Your task to perform on an android device: Open settings Image 0: 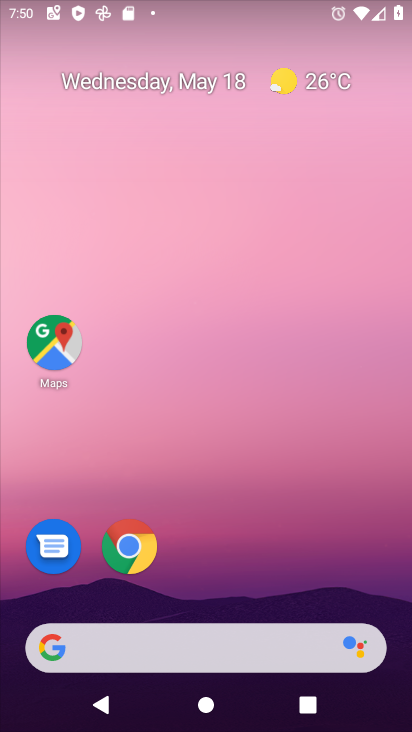
Step 0: drag from (349, 590) to (274, 82)
Your task to perform on an android device: Open settings Image 1: 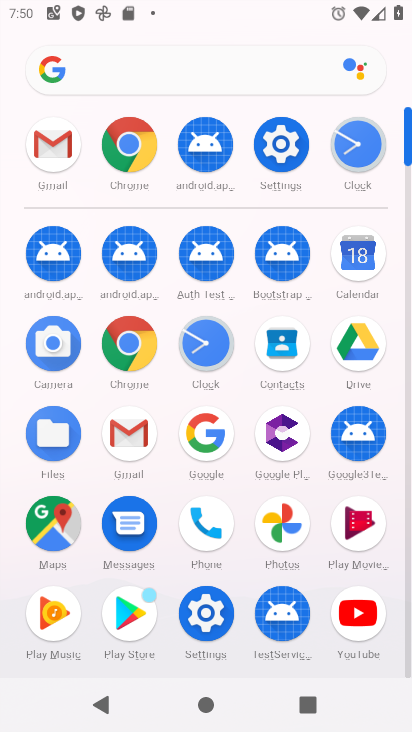
Step 1: click (221, 611)
Your task to perform on an android device: Open settings Image 2: 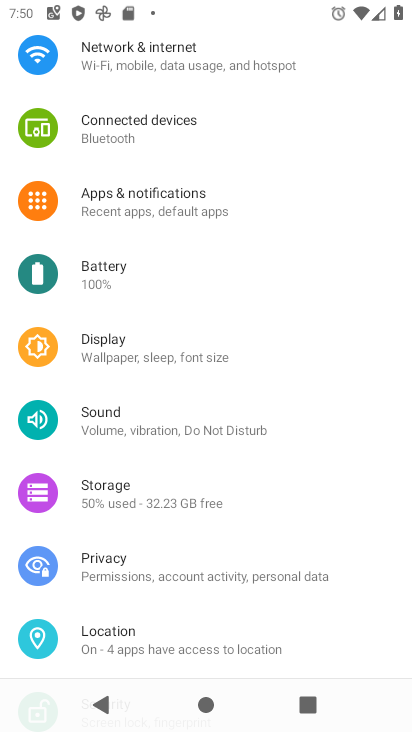
Step 2: task complete